Your task to perform on an android device: Show the shopping cart on costco. Search for razer thresher on costco, select the first entry, and add it to the cart. Image 0: 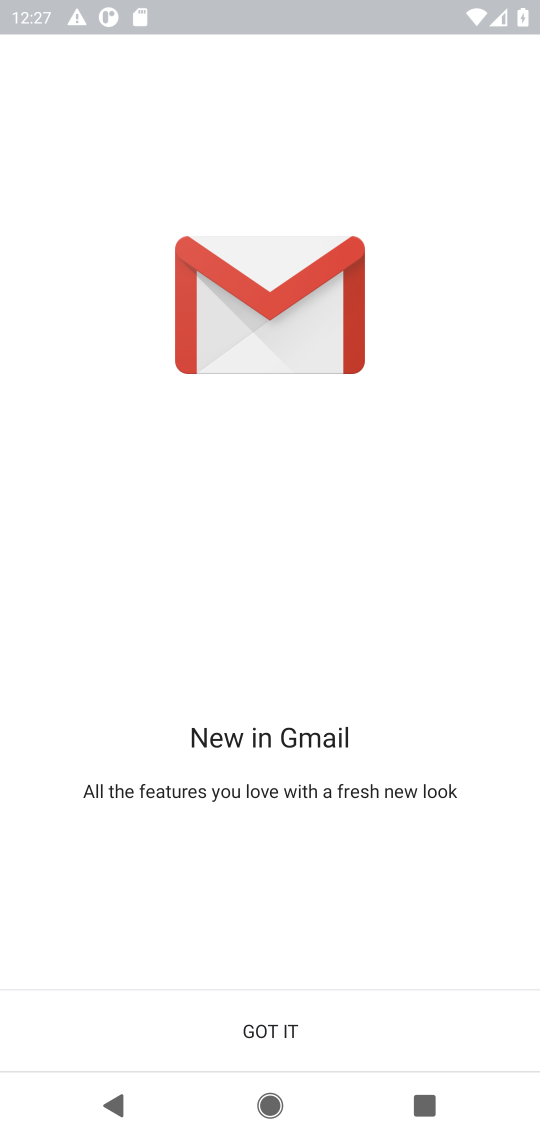
Step 0: press home button
Your task to perform on an android device: Show the shopping cart on costco. Search for razer thresher on costco, select the first entry, and add it to the cart. Image 1: 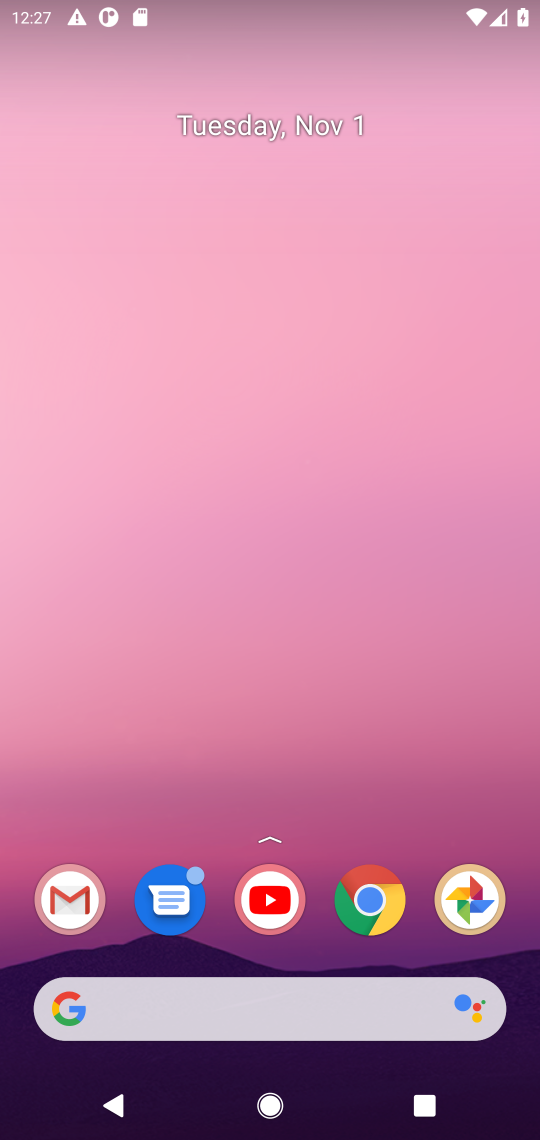
Step 1: click (368, 915)
Your task to perform on an android device: Show the shopping cart on costco. Search for razer thresher on costco, select the first entry, and add it to the cart. Image 2: 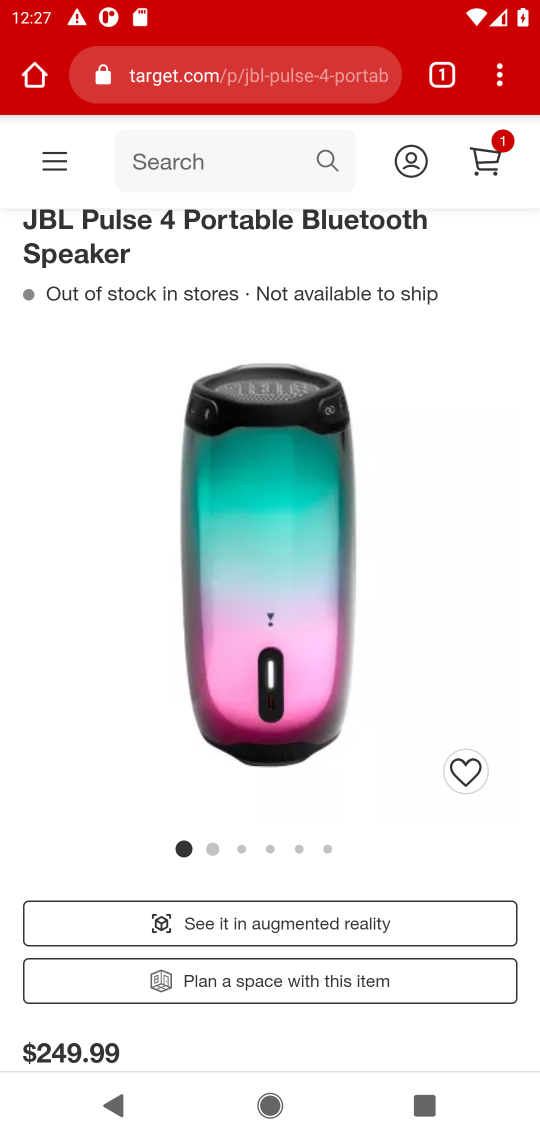
Step 2: click (225, 69)
Your task to perform on an android device: Show the shopping cart on costco. Search for razer thresher on costco, select the first entry, and add it to the cart. Image 3: 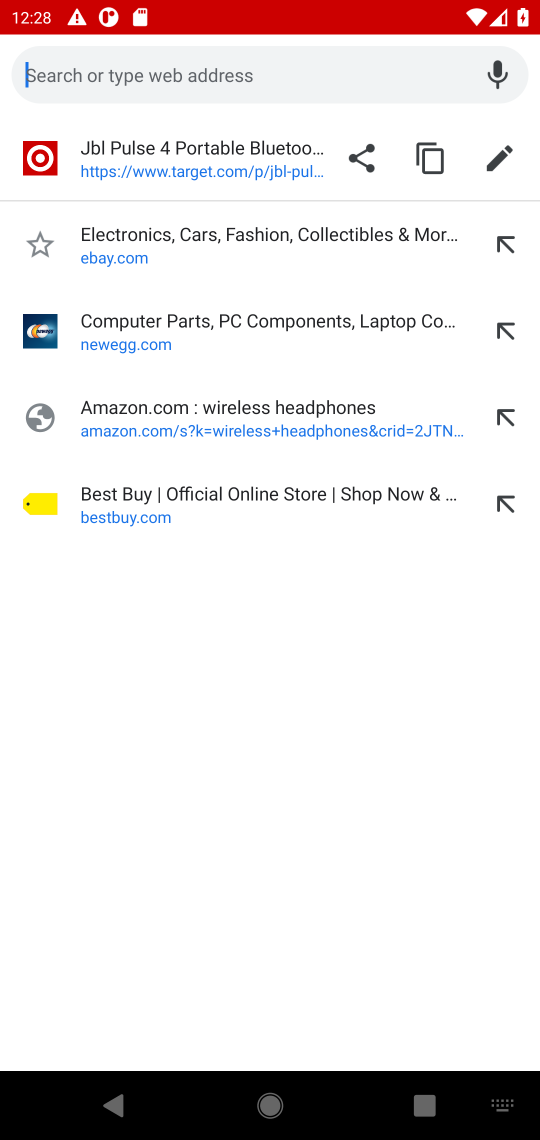
Step 3: press enter
Your task to perform on an android device: Show the shopping cart on costco. Search for razer thresher on costco, select the first entry, and add it to the cart. Image 4: 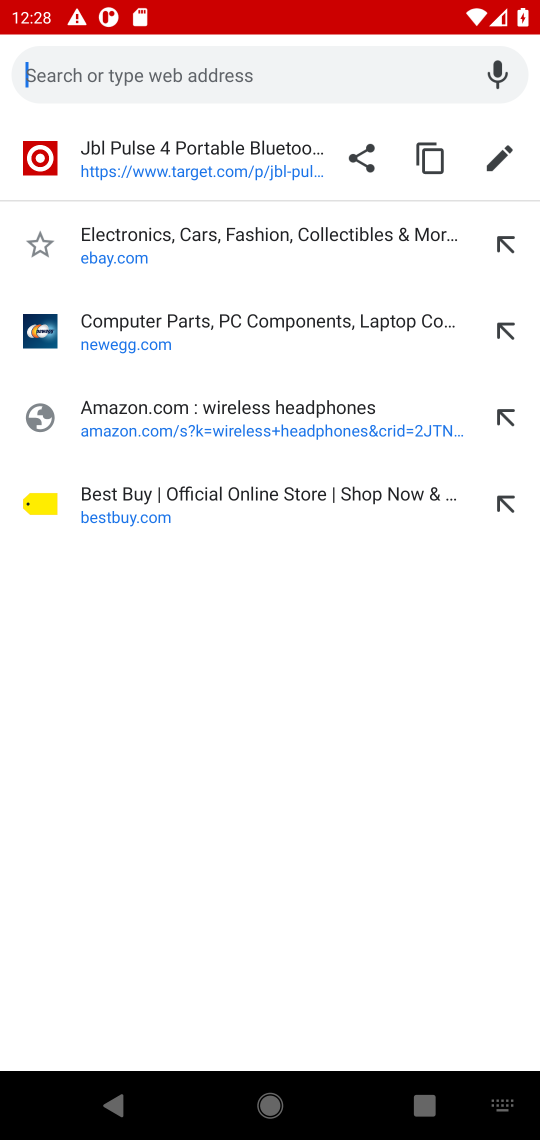
Step 4: type "costco"
Your task to perform on an android device: Show the shopping cart on costco. Search for razer thresher on costco, select the first entry, and add it to the cart. Image 5: 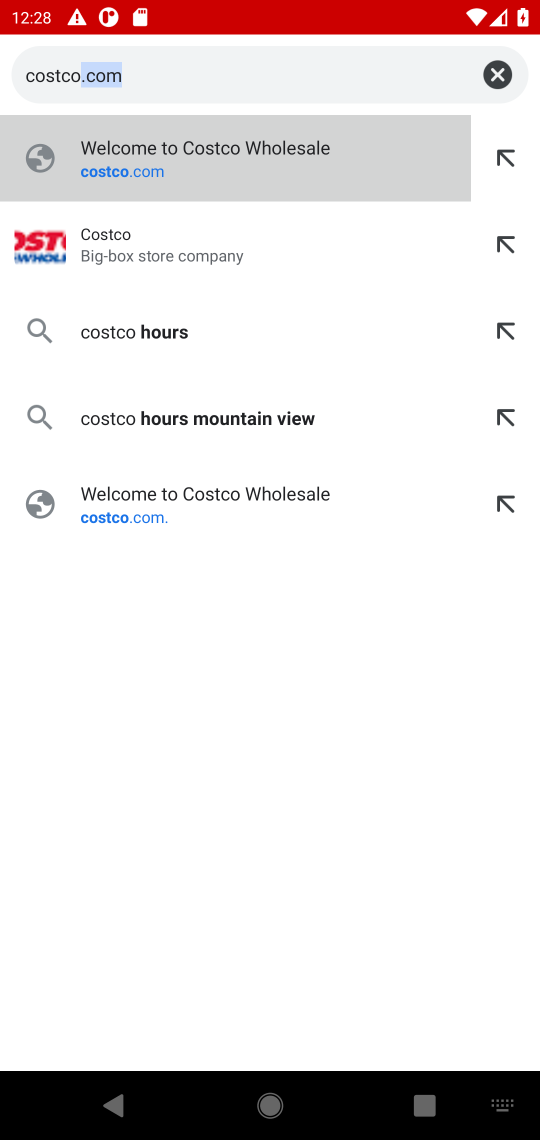
Step 5: click (153, 250)
Your task to perform on an android device: Show the shopping cart on costco. Search for razer thresher on costco, select the first entry, and add it to the cart. Image 6: 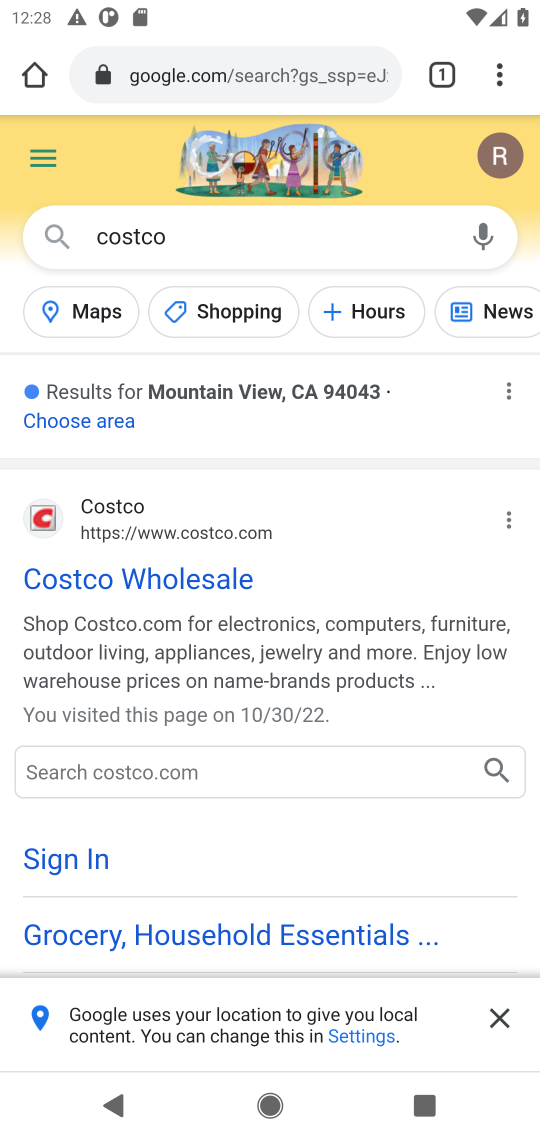
Step 6: click (107, 506)
Your task to perform on an android device: Show the shopping cart on costco. Search for razer thresher on costco, select the first entry, and add it to the cart. Image 7: 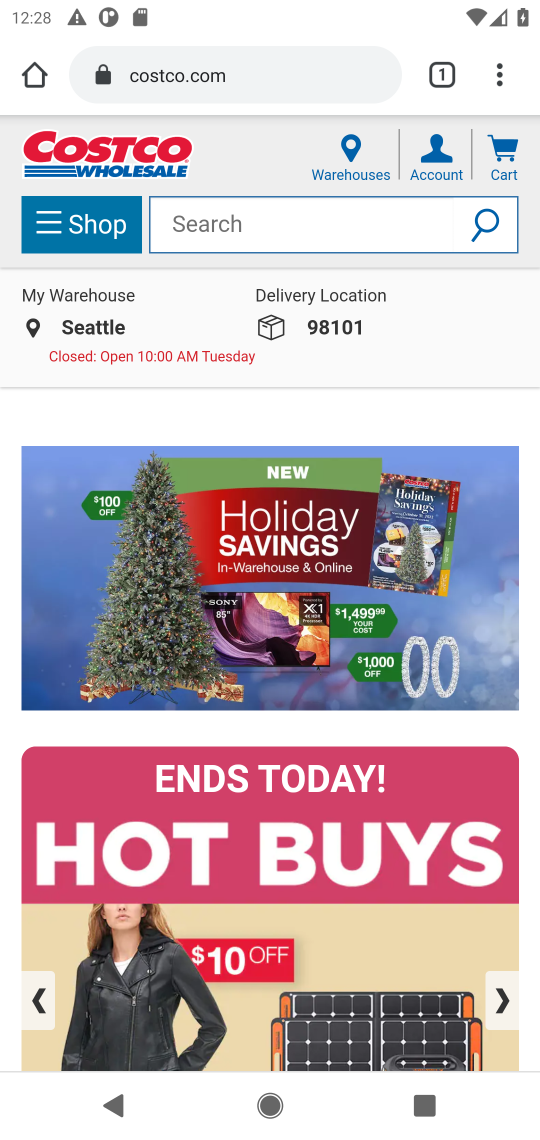
Step 7: click (324, 228)
Your task to perform on an android device: Show the shopping cart on costco. Search for razer thresher on costco, select the first entry, and add it to the cart. Image 8: 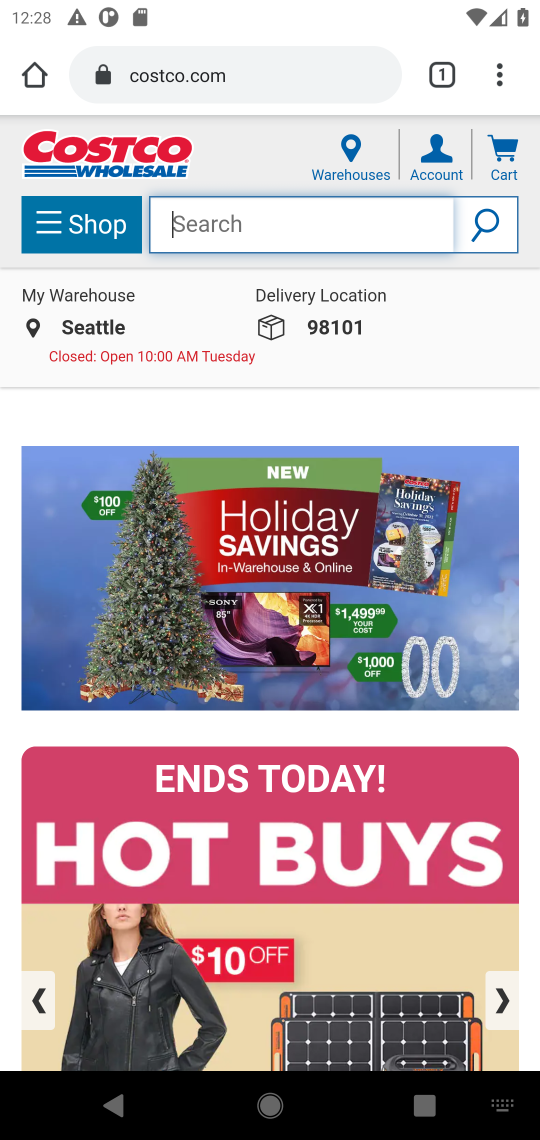
Step 8: type "razer thresher"
Your task to perform on an android device: Show the shopping cart on costco. Search for razer thresher on costco, select the first entry, and add it to the cart. Image 9: 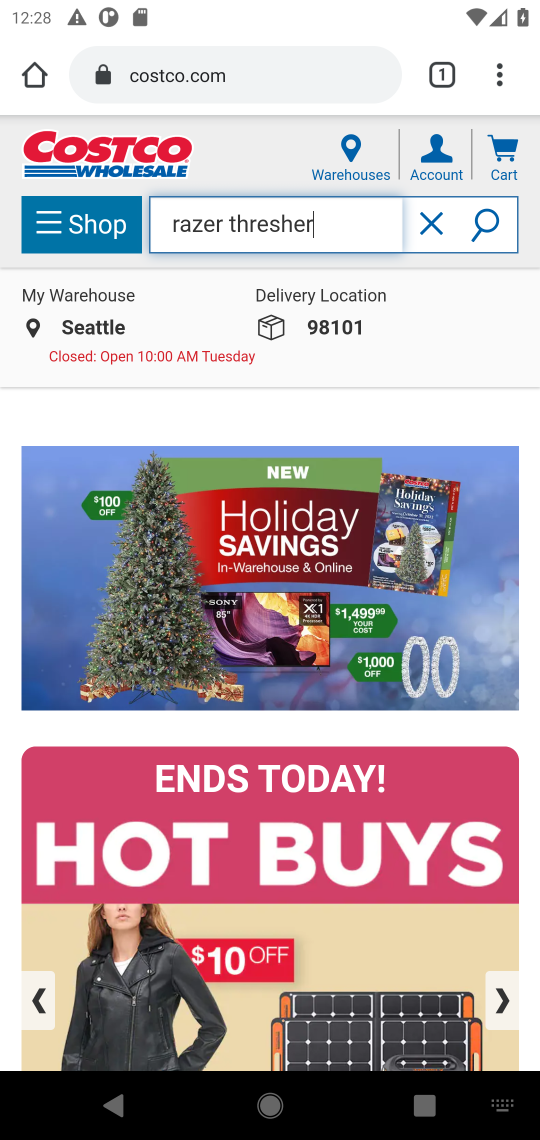
Step 9: press enter
Your task to perform on an android device: Show the shopping cart on costco. Search for razer thresher on costco, select the first entry, and add it to the cart. Image 10: 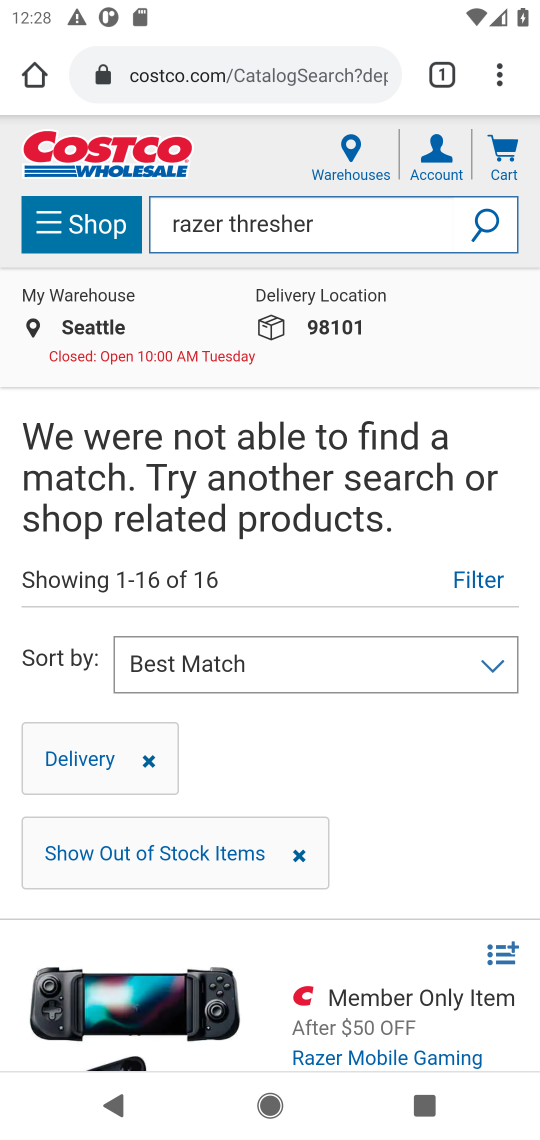
Step 10: task complete